Your task to perform on an android device: read, delete, or share a saved page in the chrome app Image 0: 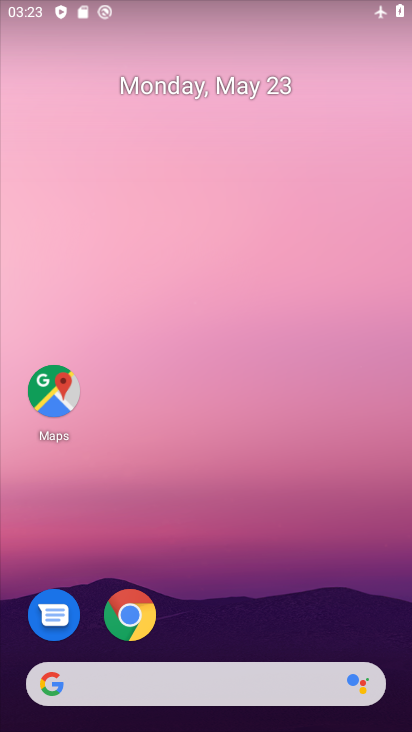
Step 0: drag from (269, 595) to (332, 198)
Your task to perform on an android device: read, delete, or share a saved page in the chrome app Image 1: 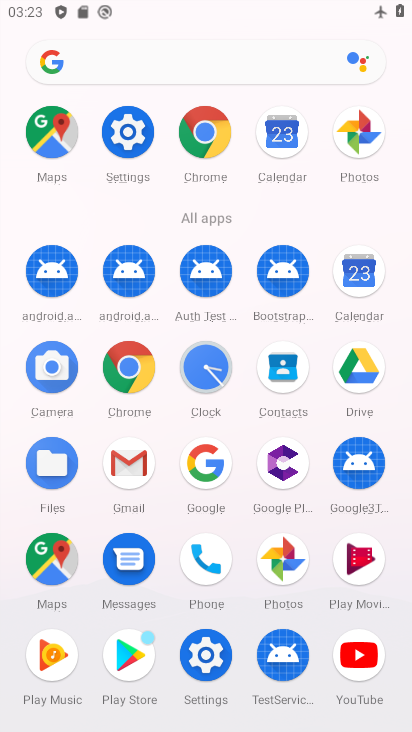
Step 1: click (128, 352)
Your task to perform on an android device: read, delete, or share a saved page in the chrome app Image 2: 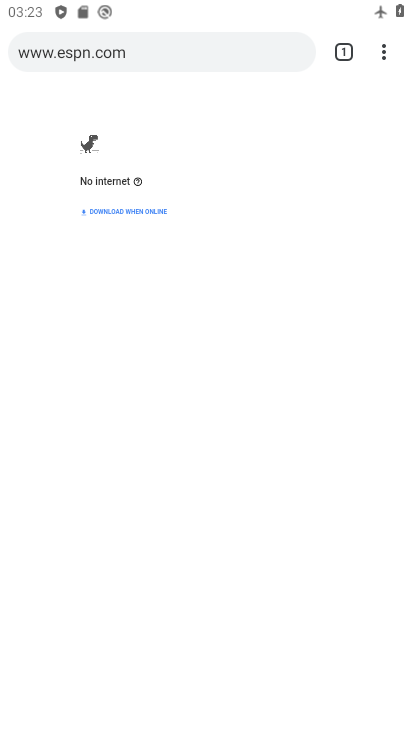
Step 2: click (396, 48)
Your task to perform on an android device: read, delete, or share a saved page in the chrome app Image 3: 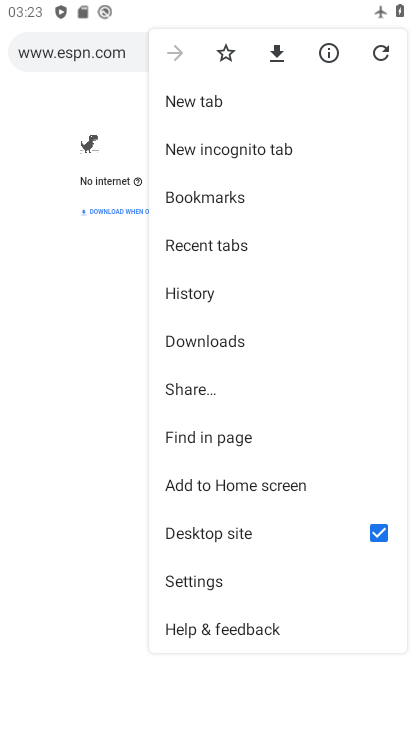
Step 3: click (214, 340)
Your task to perform on an android device: read, delete, or share a saved page in the chrome app Image 4: 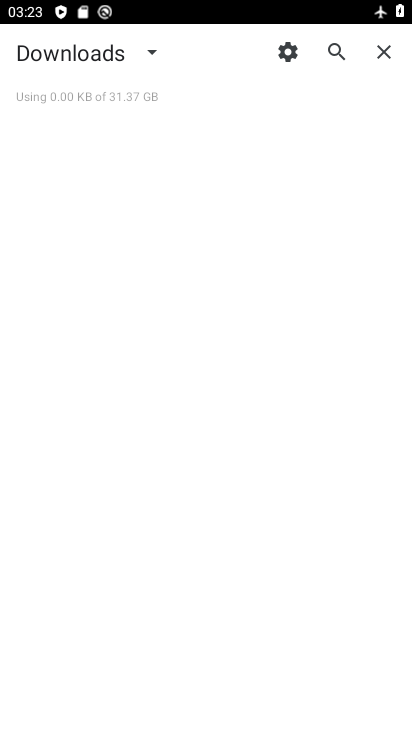
Step 4: click (159, 50)
Your task to perform on an android device: read, delete, or share a saved page in the chrome app Image 5: 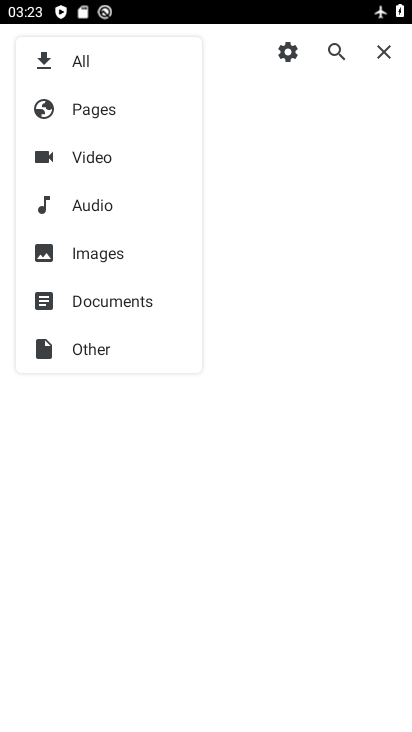
Step 5: click (103, 116)
Your task to perform on an android device: read, delete, or share a saved page in the chrome app Image 6: 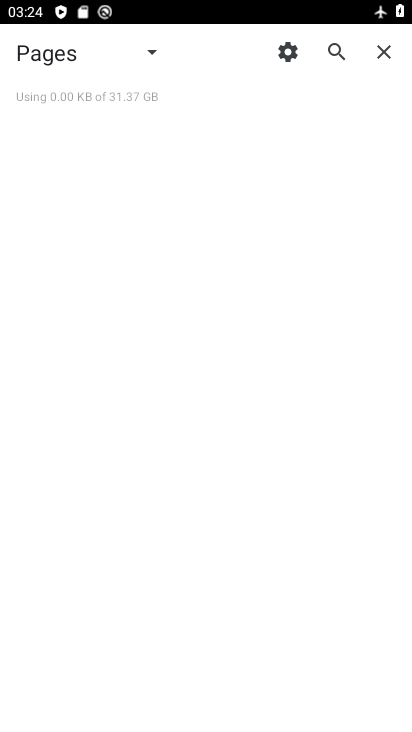
Step 6: task complete